Your task to perform on an android device: Do I have any events tomorrow? Image 0: 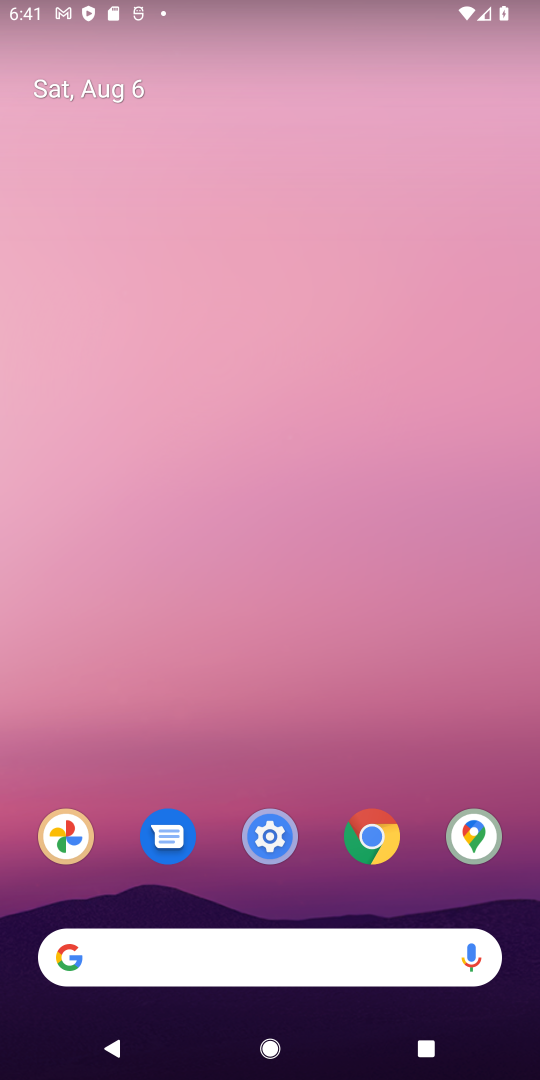
Step 0: drag from (458, 899) to (262, 48)
Your task to perform on an android device: Do I have any events tomorrow? Image 1: 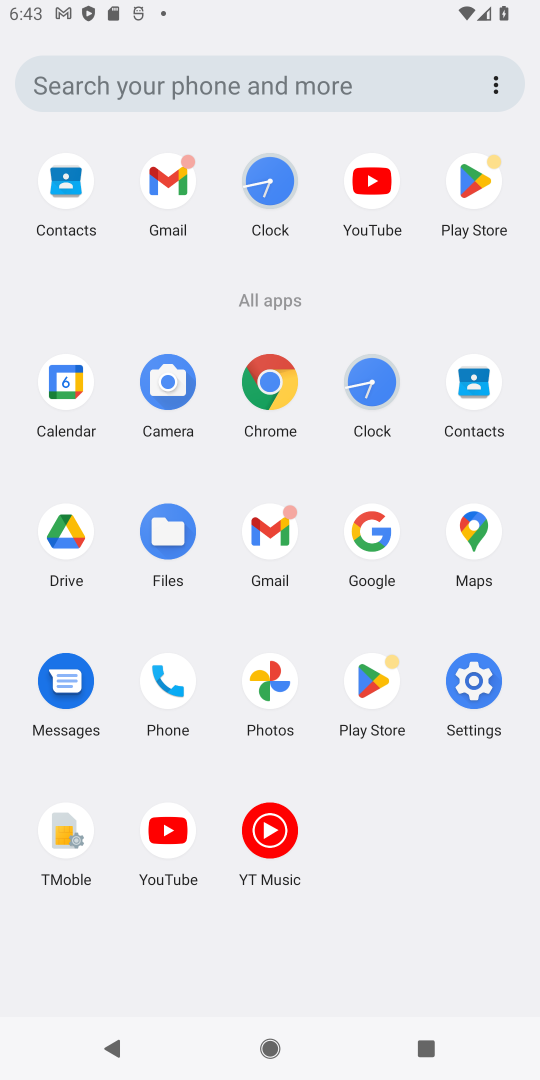
Step 1: click (61, 384)
Your task to perform on an android device: Do I have any events tomorrow? Image 2: 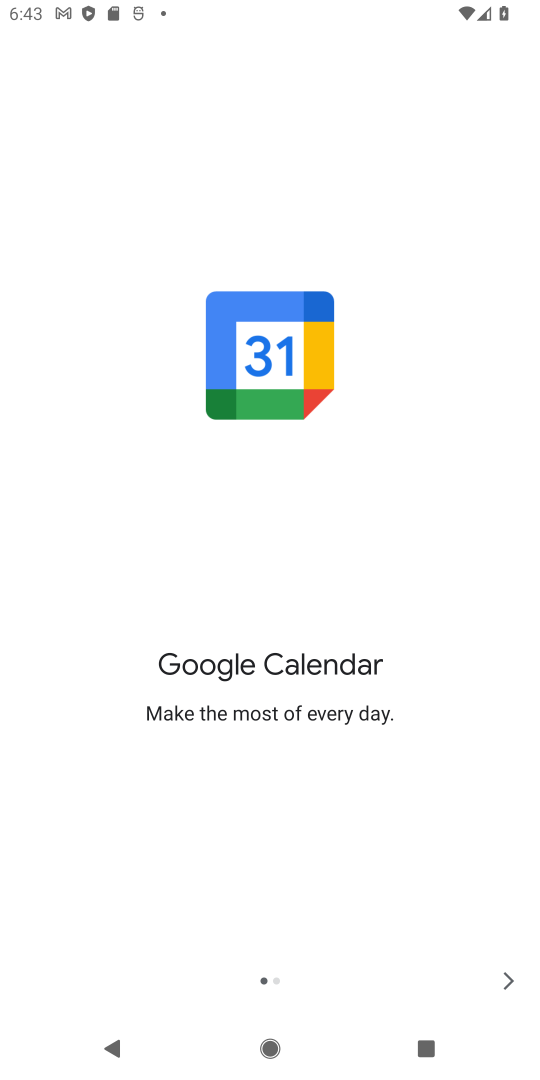
Step 2: click (504, 987)
Your task to perform on an android device: Do I have any events tomorrow? Image 3: 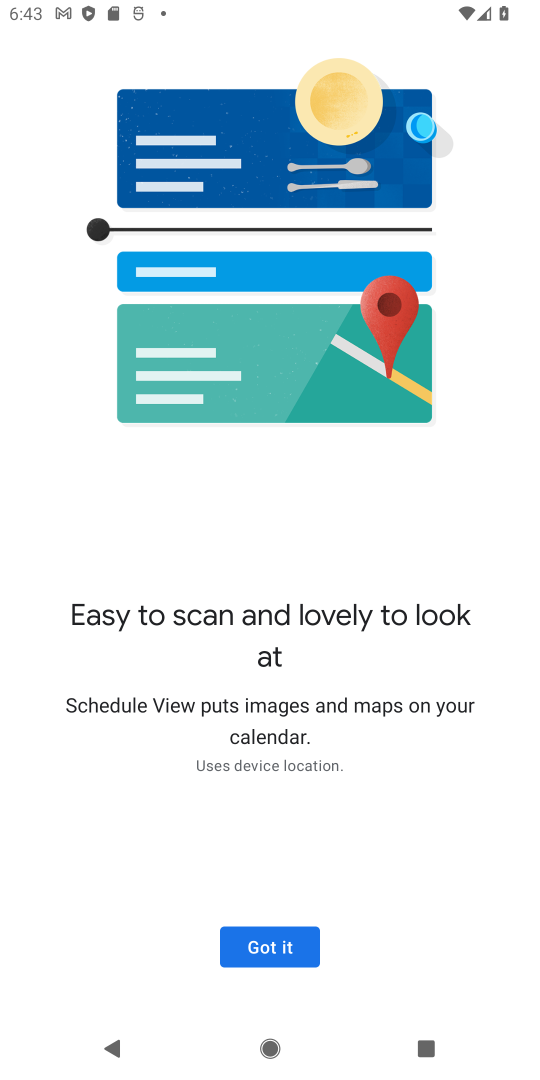
Step 3: click (299, 948)
Your task to perform on an android device: Do I have any events tomorrow? Image 4: 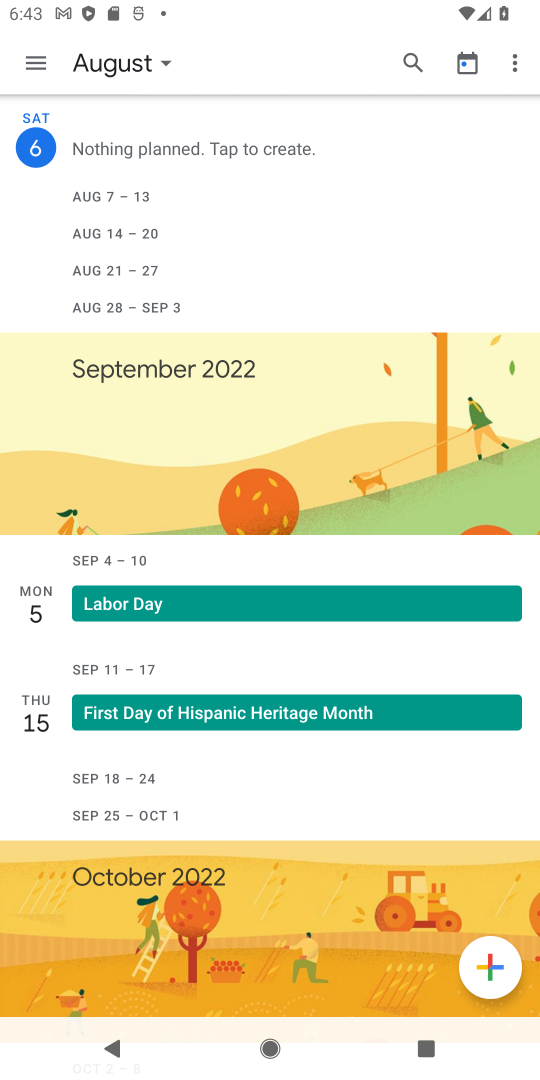
Step 4: task complete